Your task to perform on an android device: What's on my calendar tomorrow? Image 0: 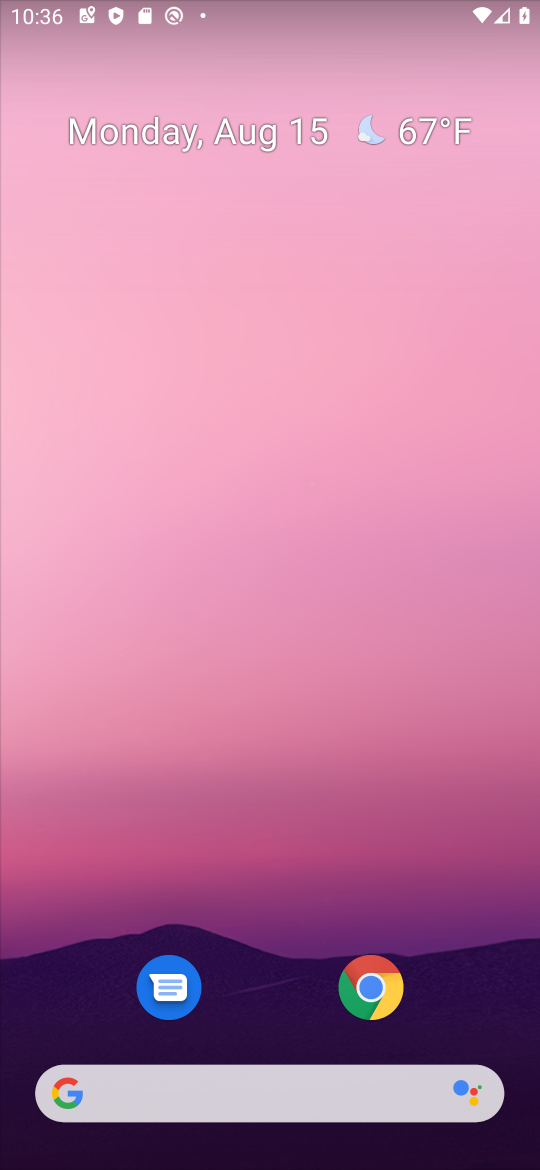
Step 0: drag from (301, 1047) to (363, 24)
Your task to perform on an android device: What's on my calendar tomorrow? Image 1: 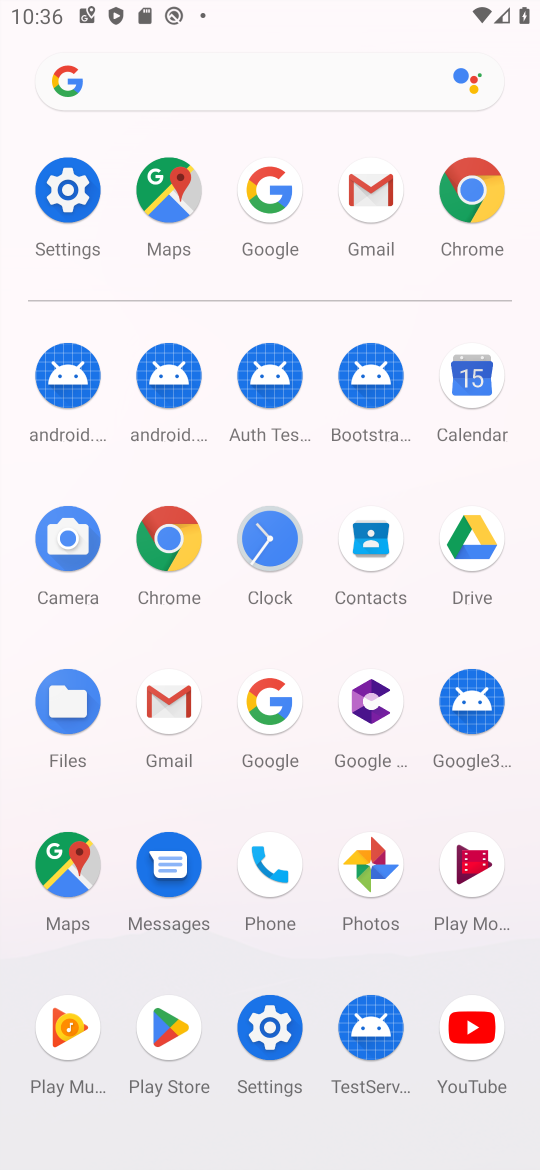
Step 1: click (475, 395)
Your task to perform on an android device: What's on my calendar tomorrow? Image 2: 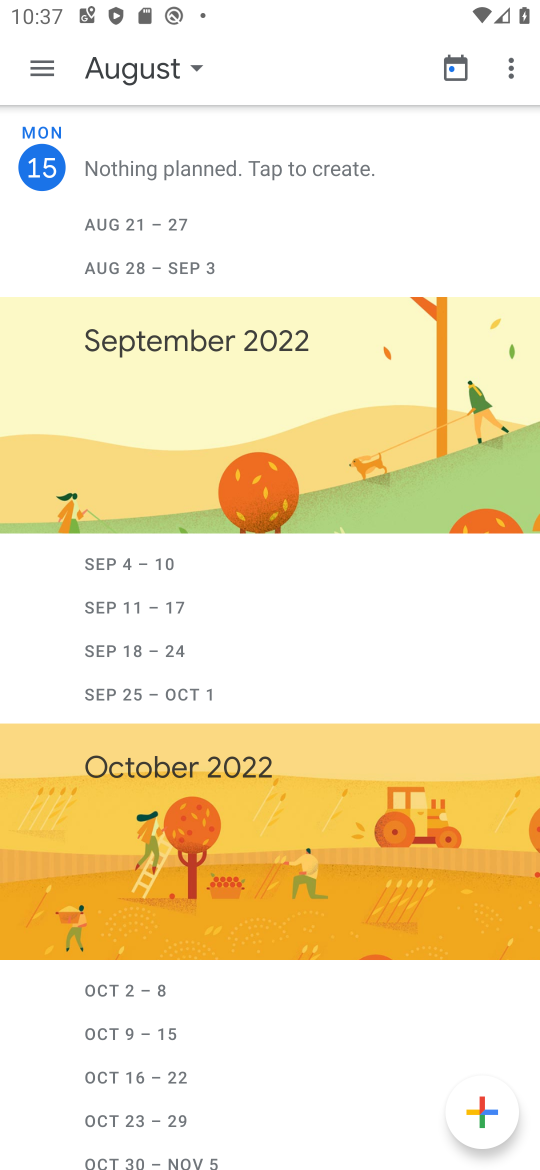
Step 2: click (58, 56)
Your task to perform on an android device: What's on my calendar tomorrow? Image 3: 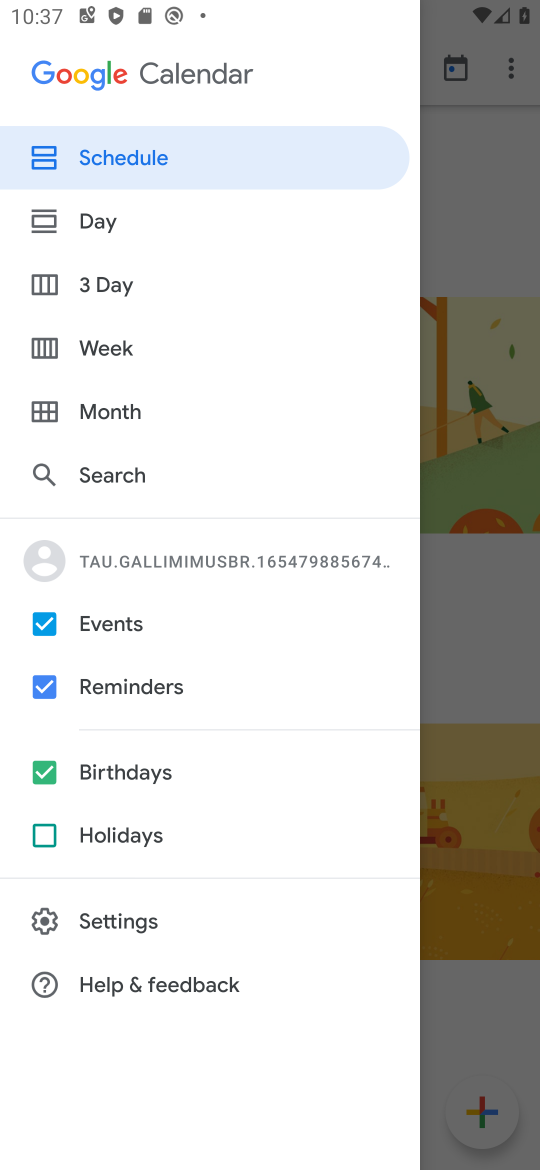
Step 3: click (110, 346)
Your task to perform on an android device: What's on my calendar tomorrow? Image 4: 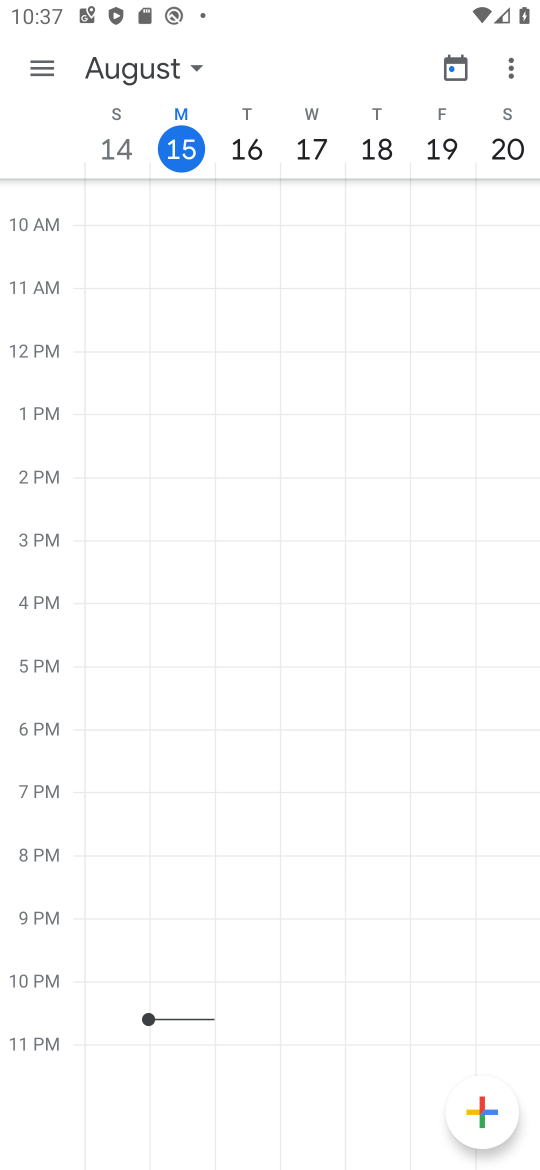
Step 4: click (249, 139)
Your task to perform on an android device: What's on my calendar tomorrow? Image 5: 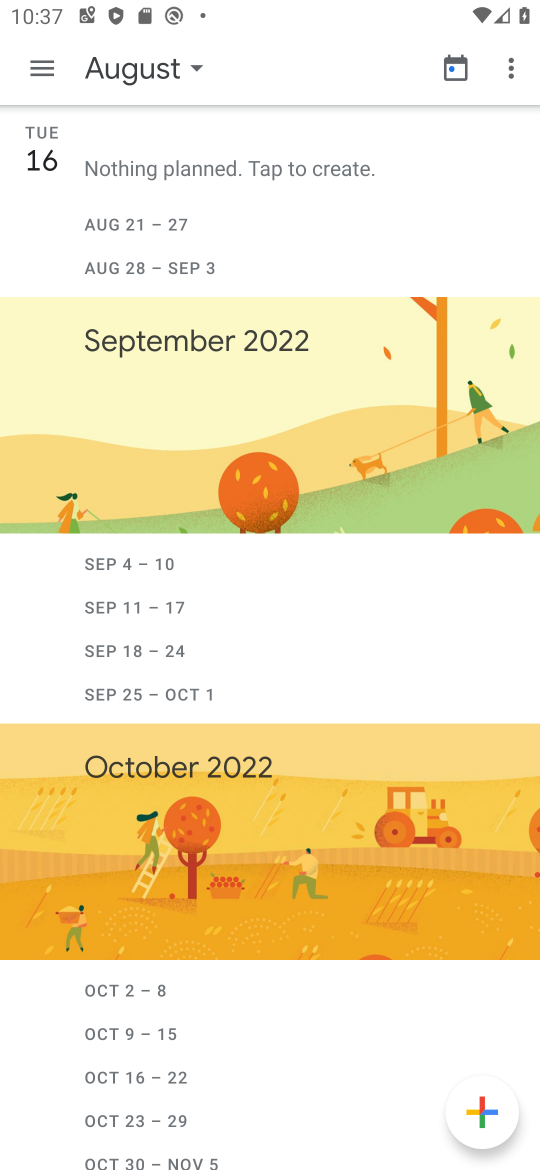
Step 5: task complete